Your task to perform on an android device: See recent photos Image 0: 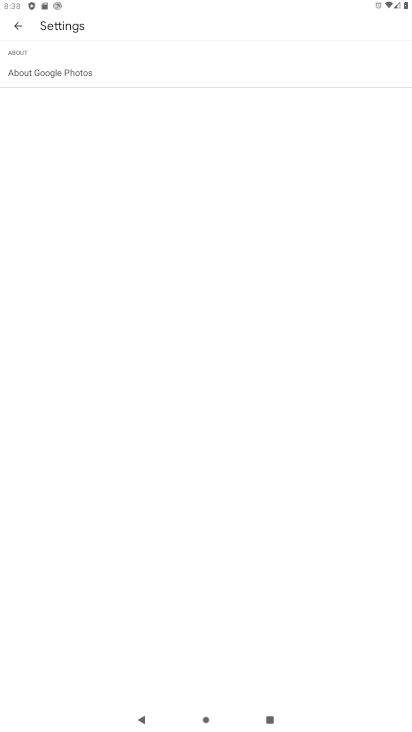
Step 0: press home button
Your task to perform on an android device: See recent photos Image 1: 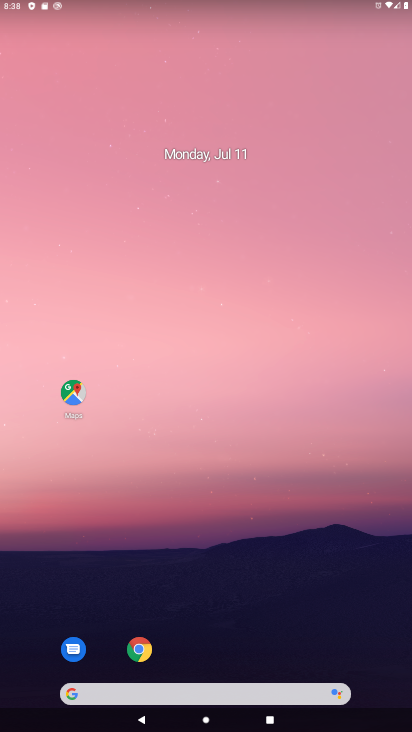
Step 1: drag from (190, 699) to (315, 68)
Your task to perform on an android device: See recent photos Image 2: 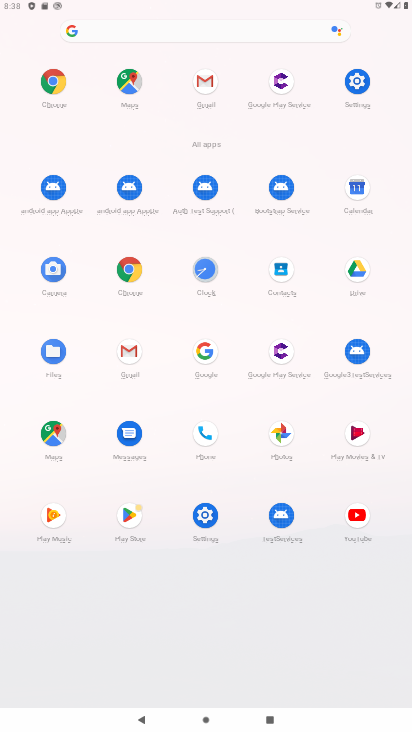
Step 2: click (282, 436)
Your task to perform on an android device: See recent photos Image 3: 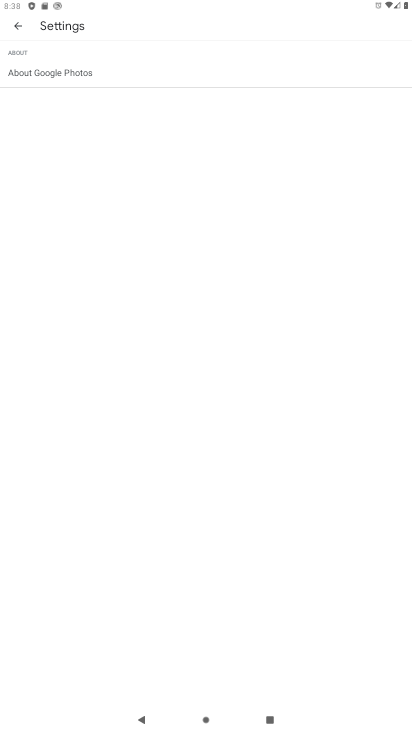
Step 3: press back button
Your task to perform on an android device: See recent photos Image 4: 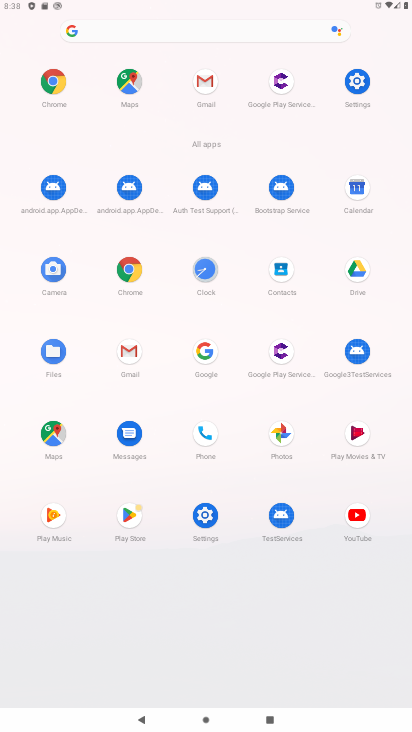
Step 4: click (280, 436)
Your task to perform on an android device: See recent photos Image 5: 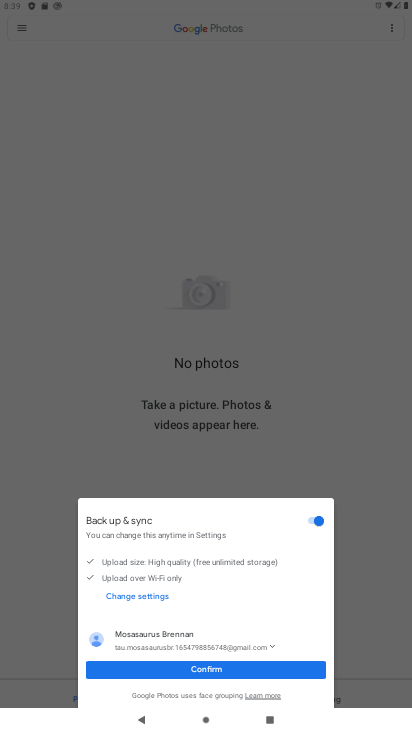
Step 5: click (151, 667)
Your task to perform on an android device: See recent photos Image 6: 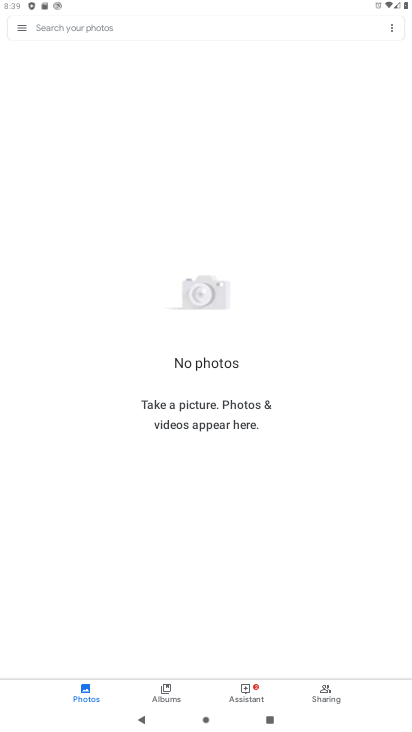
Step 6: click (169, 687)
Your task to perform on an android device: See recent photos Image 7: 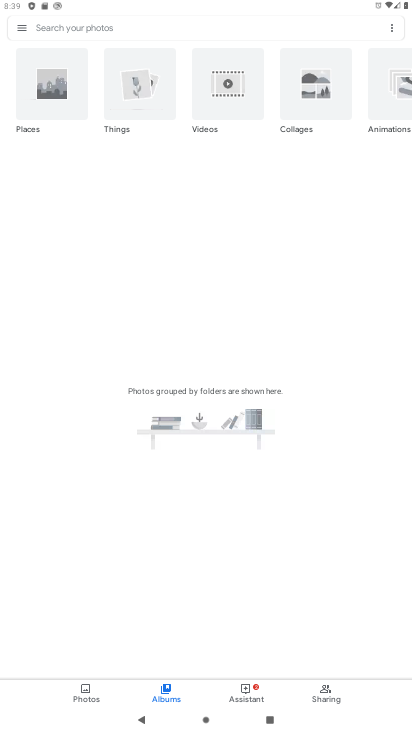
Step 7: click (66, 93)
Your task to perform on an android device: See recent photos Image 8: 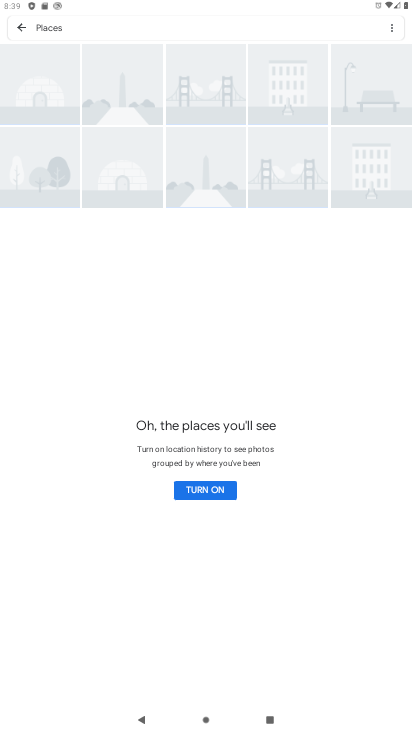
Step 8: click (208, 495)
Your task to perform on an android device: See recent photos Image 9: 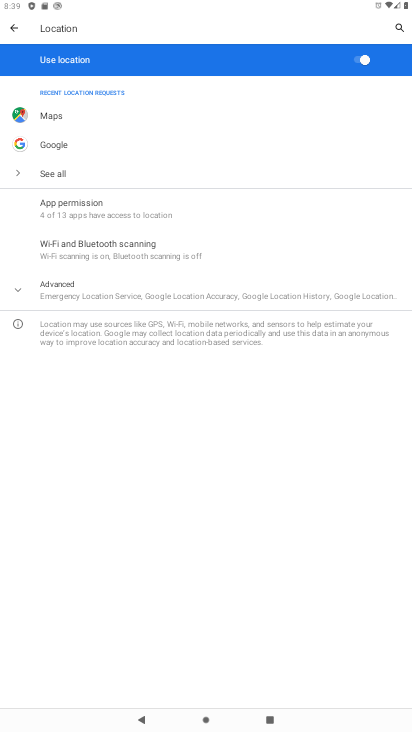
Step 9: press back button
Your task to perform on an android device: See recent photos Image 10: 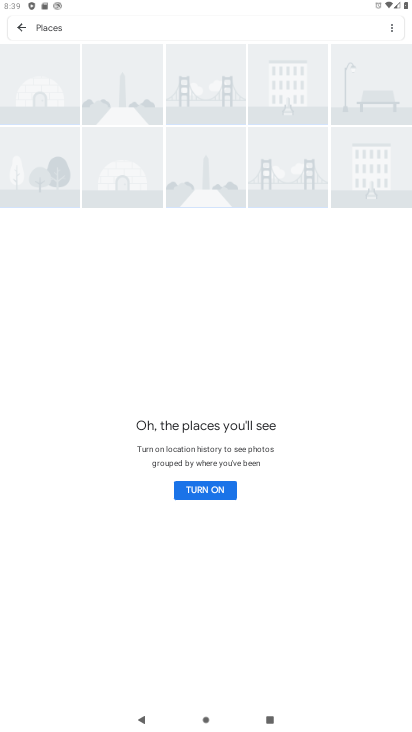
Step 10: press back button
Your task to perform on an android device: See recent photos Image 11: 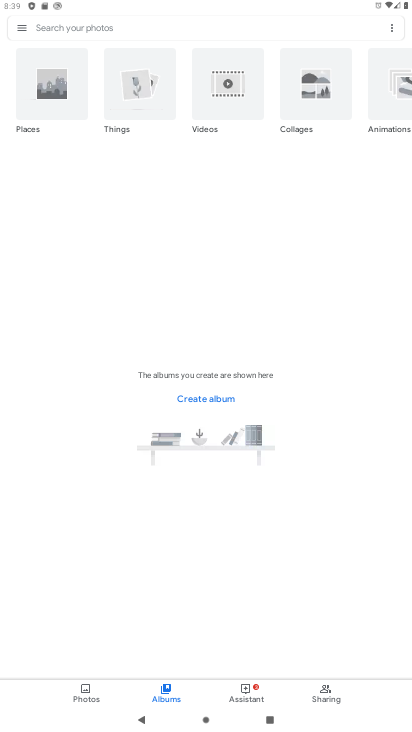
Step 11: click (146, 77)
Your task to perform on an android device: See recent photos Image 12: 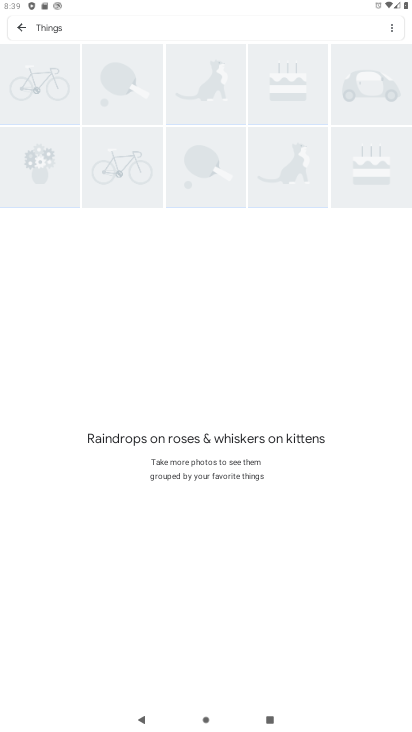
Step 12: press back button
Your task to perform on an android device: See recent photos Image 13: 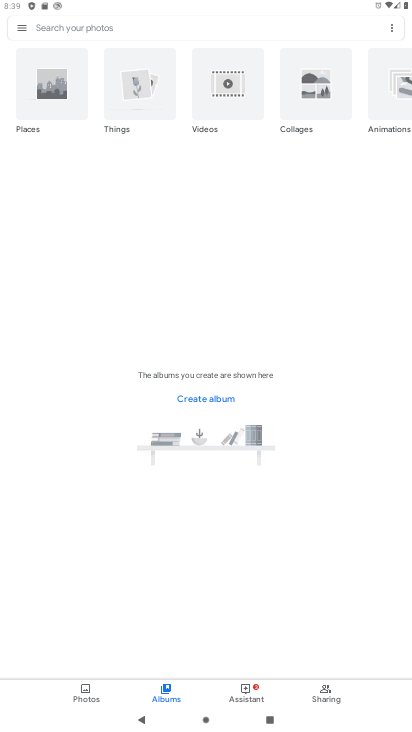
Step 13: click (238, 88)
Your task to perform on an android device: See recent photos Image 14: 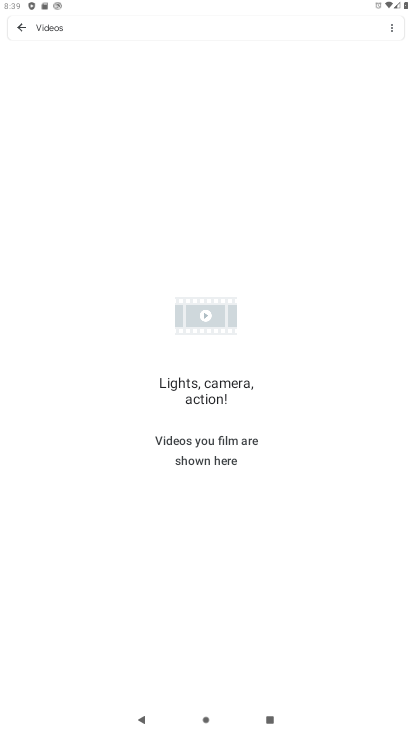
Step 14: press back button
Your task to perform on an android device: See recent photos Image 15: 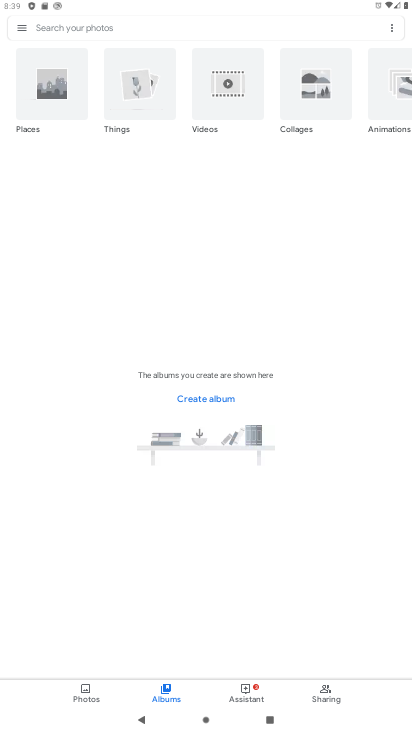
Step 15: click (397, 97)
Your task to perform on an android device: See recent photos Image 16: 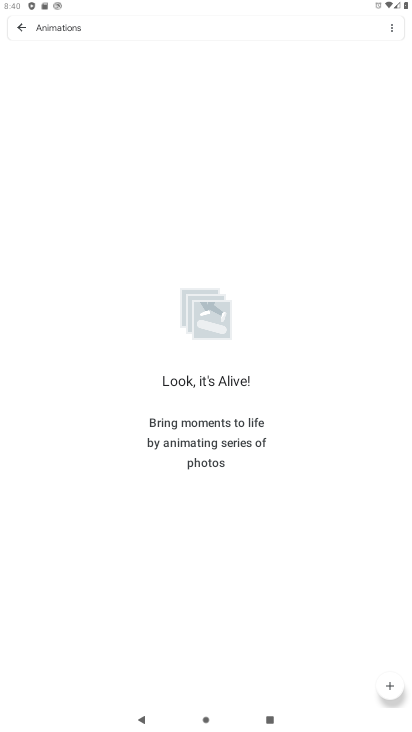
Step 16: task complete